Your task to perform on an android device: When is my next meeting? Image 0: 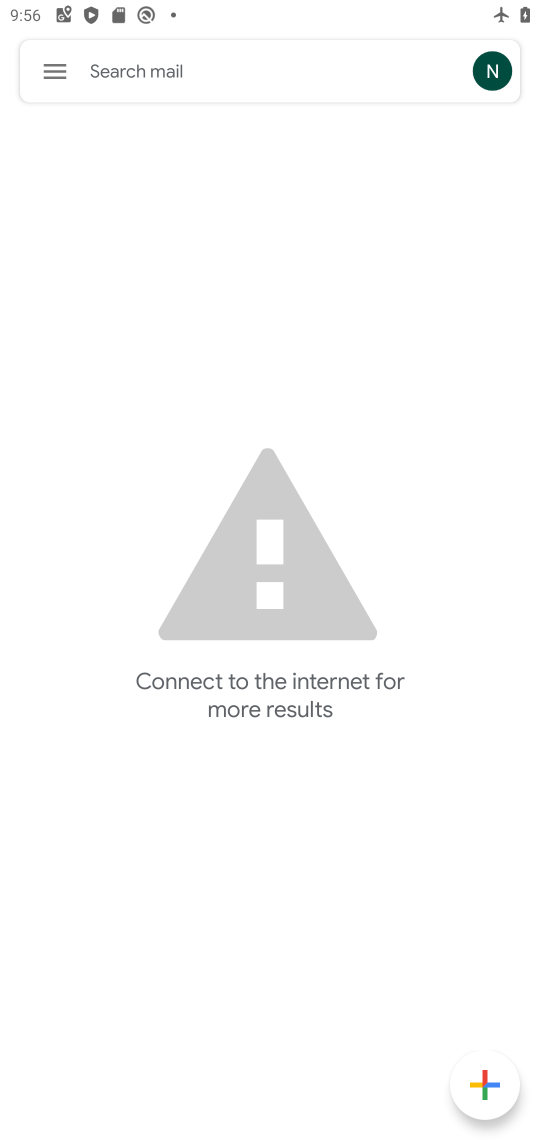
Step 0: press back button
Your task to perform on an android device: When is my next meeting? Image 1: 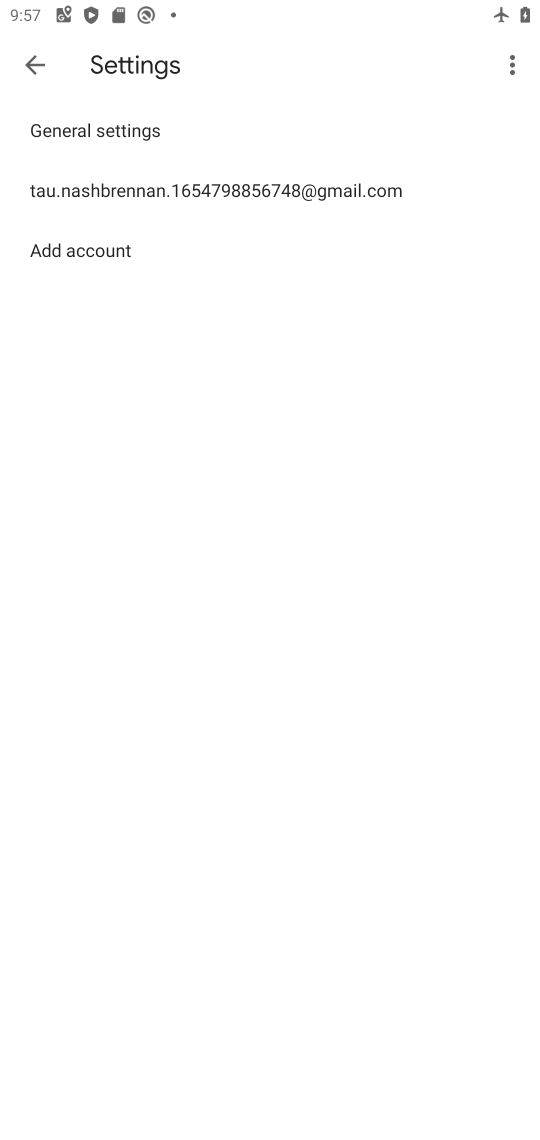
Step 1: press home button
Your task to perform on an android device: When is my next meeting? Image 2: 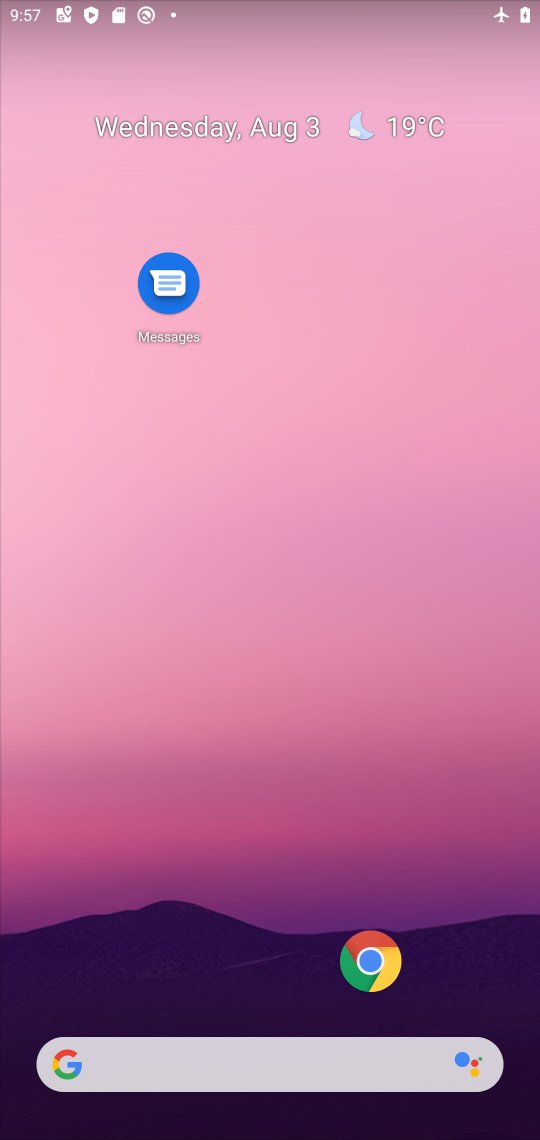
Step 2: drag from (287, 1008) to (243, 53)
Your task to perform on an android device: When is my next meeting? Image 3: 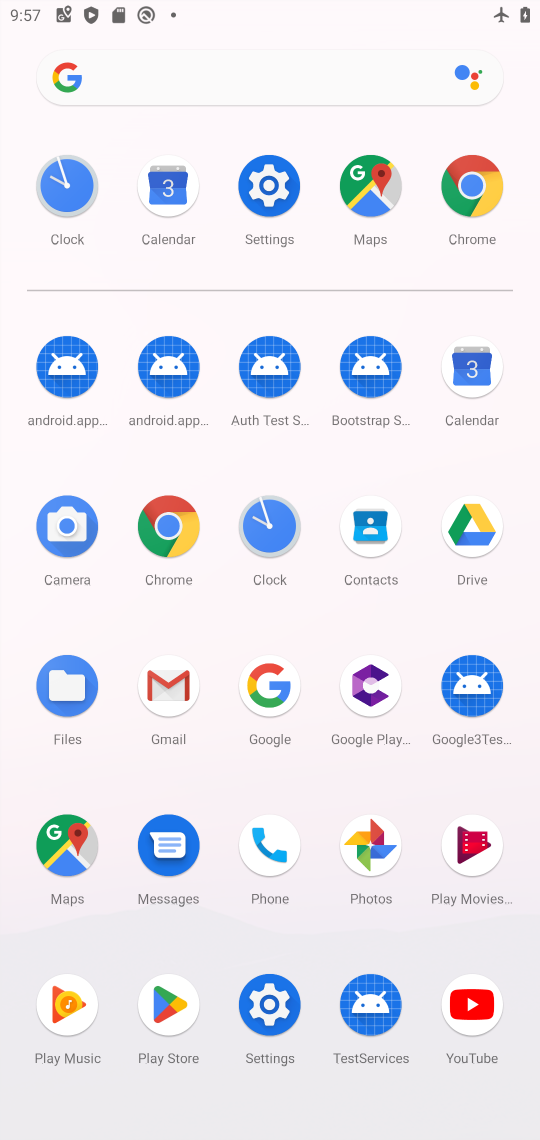
Step 3: click (182, 188)
Your task to perform on an android device: When is my next meeting? Image 4: 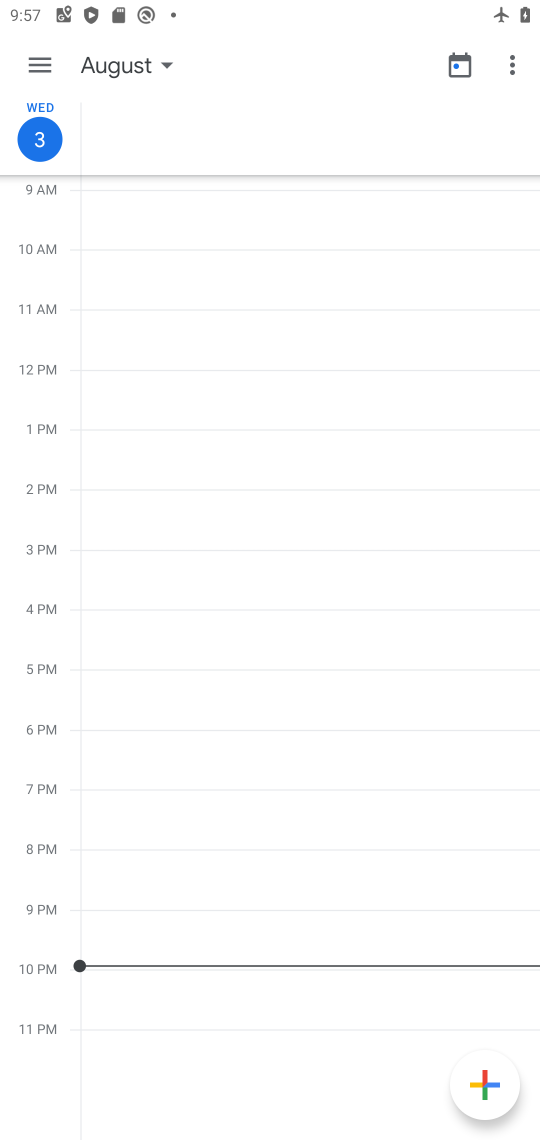
Step 4: click (465, 73)
Your task to perform on an android device: When is my next meeting? Image 5: 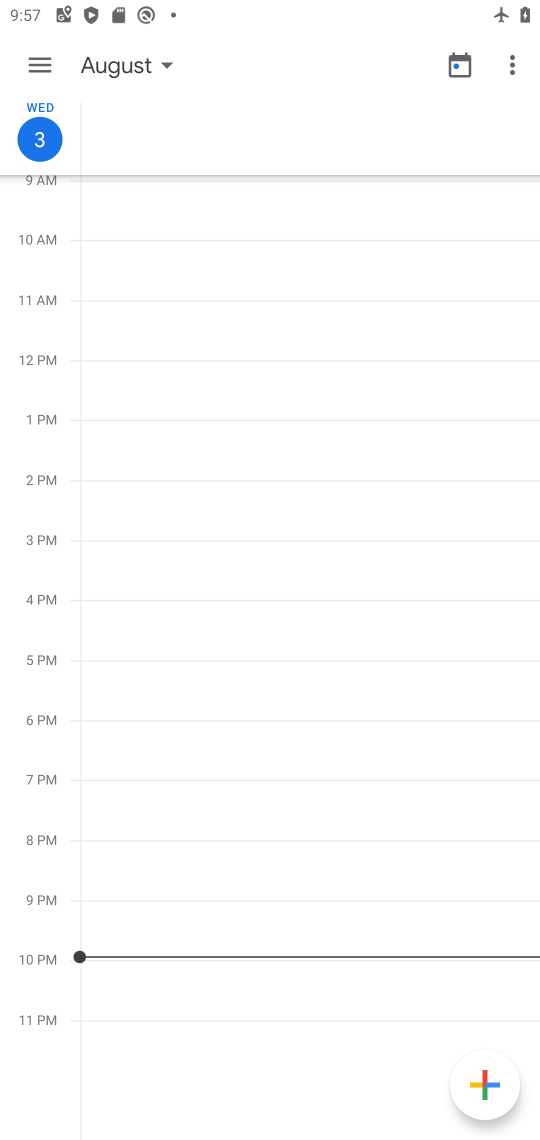
Step 5: click (46, 75)
Your task to perform on an android device: When is my next meeting? Image 6: 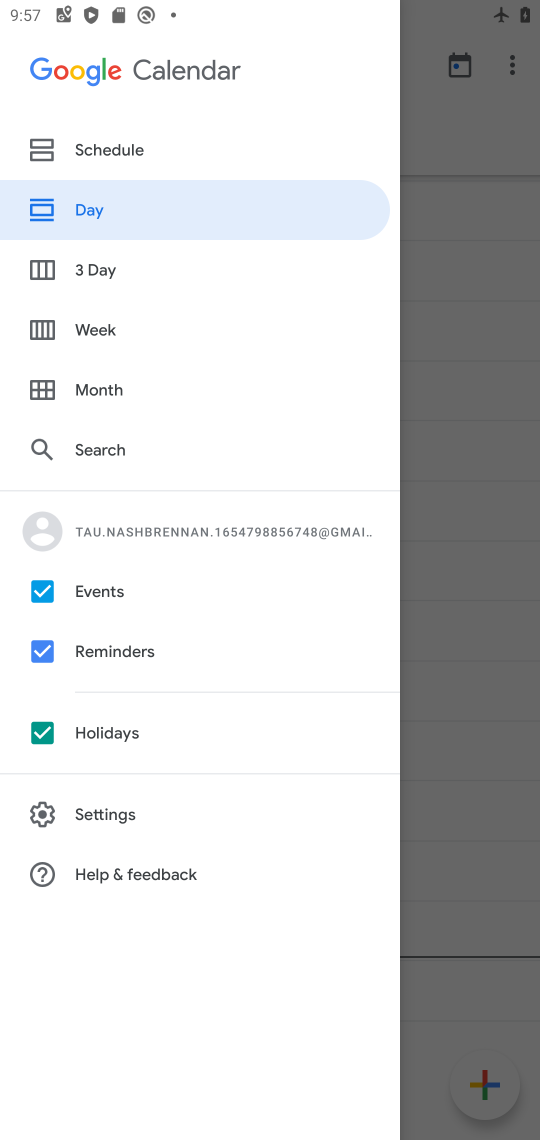
Step 6: click (105, 317)
Your task to perform on an android device: When is my next meeting? Image 7: 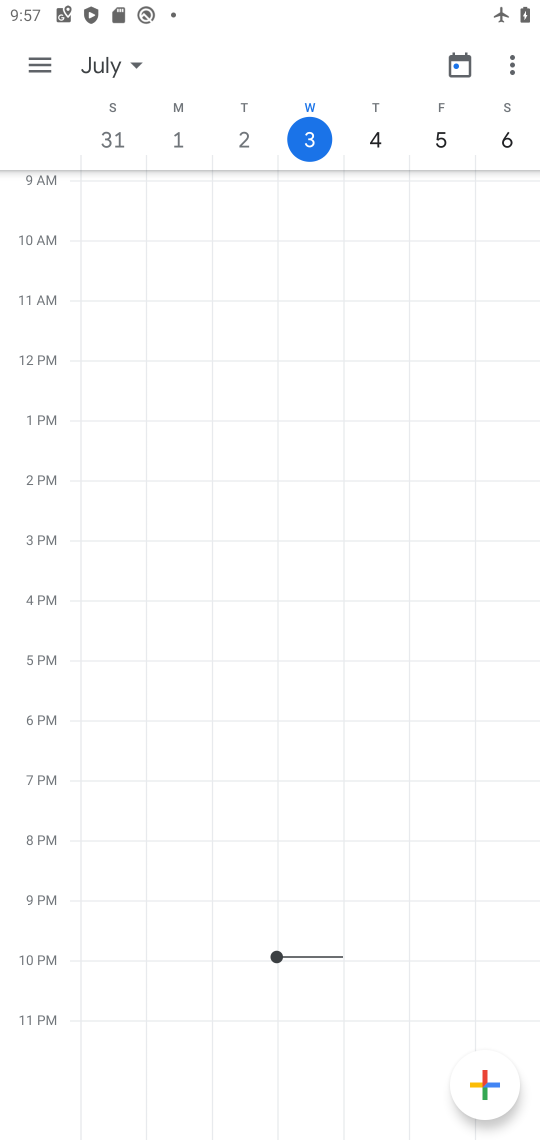
Step 7: task complete